Your task to perform on an android device: turn notification dots off Image 0: 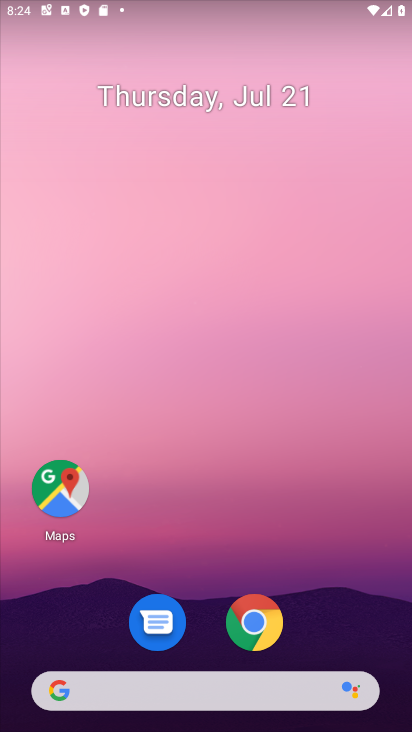
Step 0: drag from (144, 665) to (137, 41)
Your task to perform on an android device: turn notification dots off Image 1: 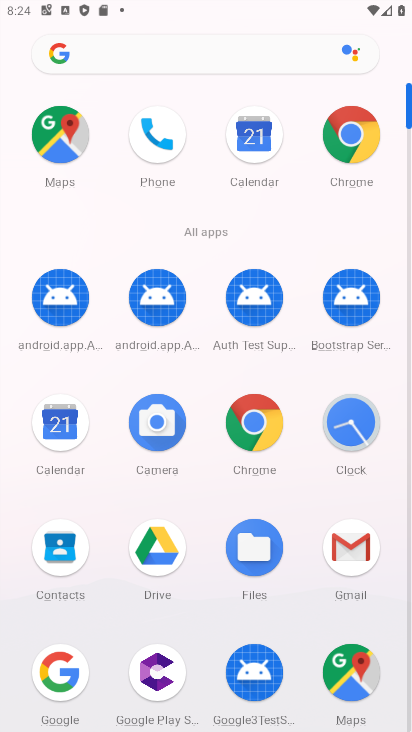
Step 1: drag from (171, 561) to (101, 44)
Your task to perform on an android device: turn notification dots off Image 2: 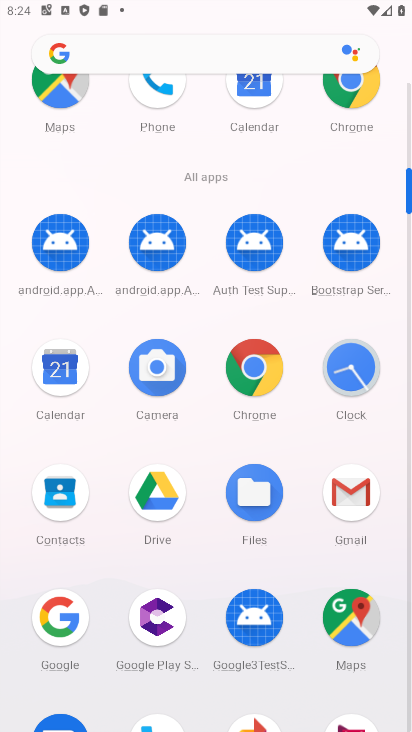
Step 2: drag from (183, 690) to (98, 139)
Your task to perform on an android device: turn notification dots off Image 3: 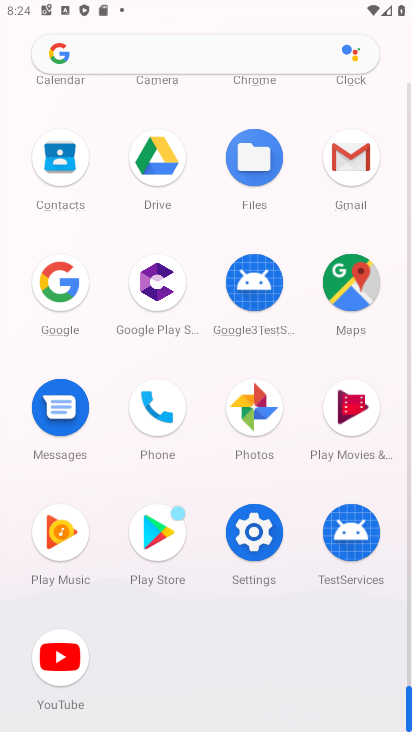
Step 3: click (269, 532)
Your task to perform on an android device: turn notification dots off Image 4: 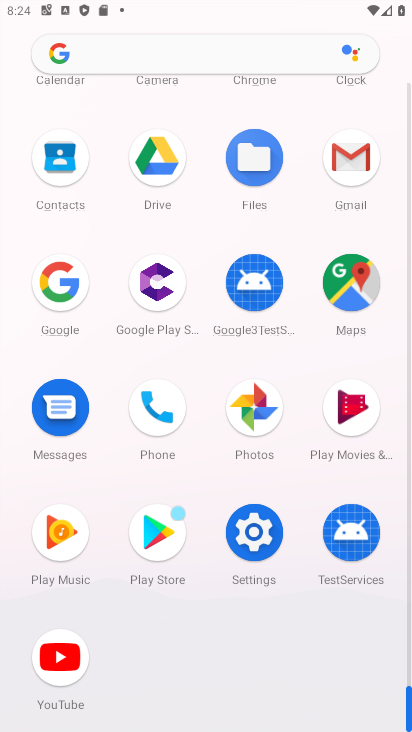
Step 4: click (269, 532)
Your task to perform on an android device: turn notification dots off Image 5: 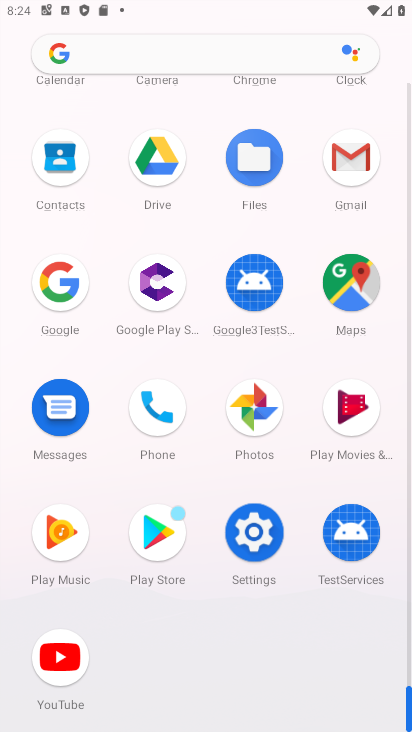
Step 5: click (269, 532)
Your task to perform on an android device: turn notification dots off Image 6: 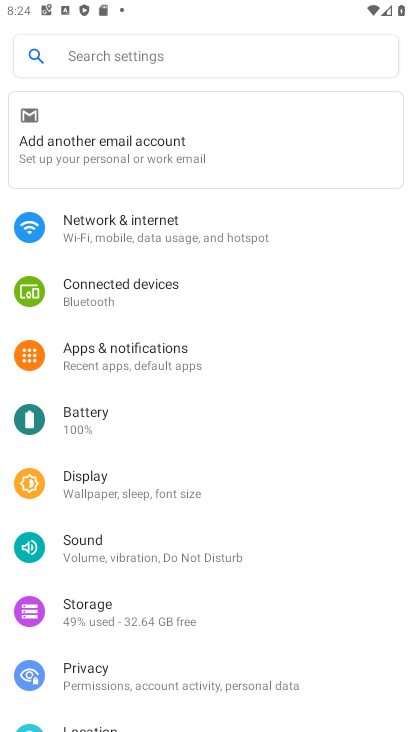
Step 6: click (212, 368)
Your task to perform on an android device: turn notification dots off Image 7: 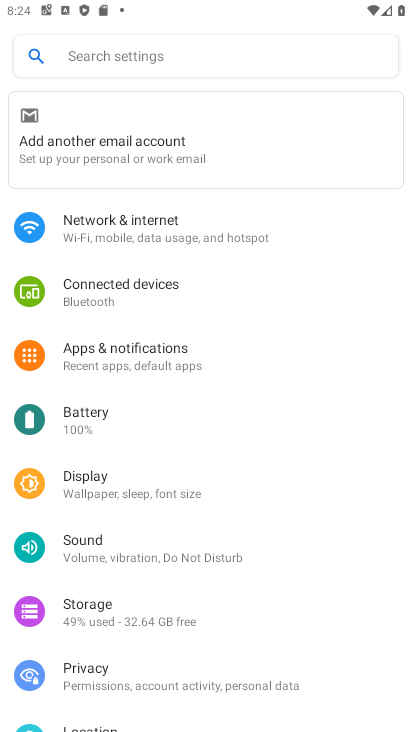
Step 7: click (212, 368)
Your task to perform on an android device: turn notification dots off Image 8: 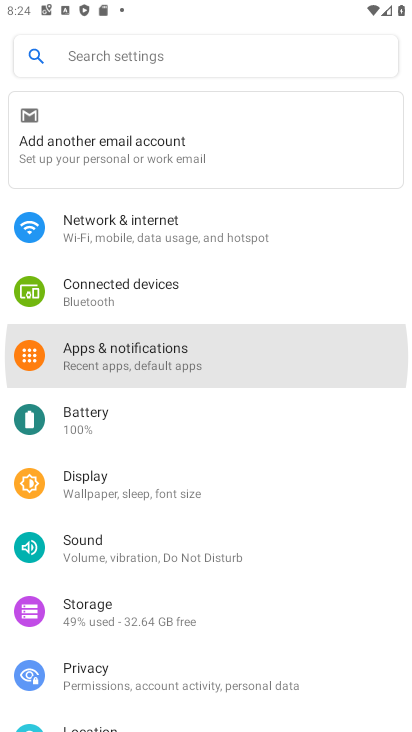
Step 8: click (212, 368)
Your task to perform on an android device: turn notification dots off Image 9: 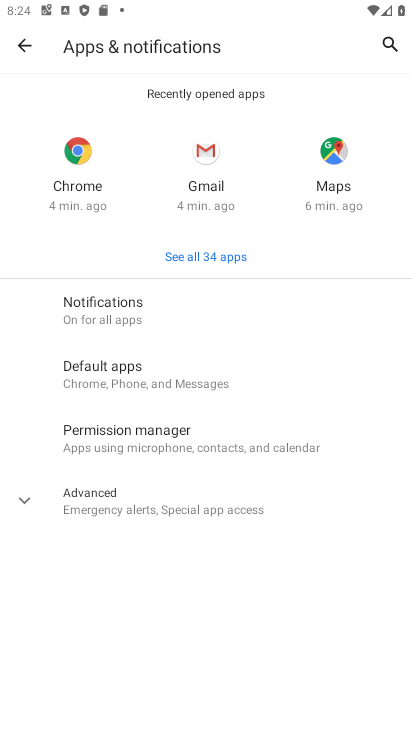
Step 9: click (157, 296)
Your task to perform on an android device: turn notification dots off Image 10: 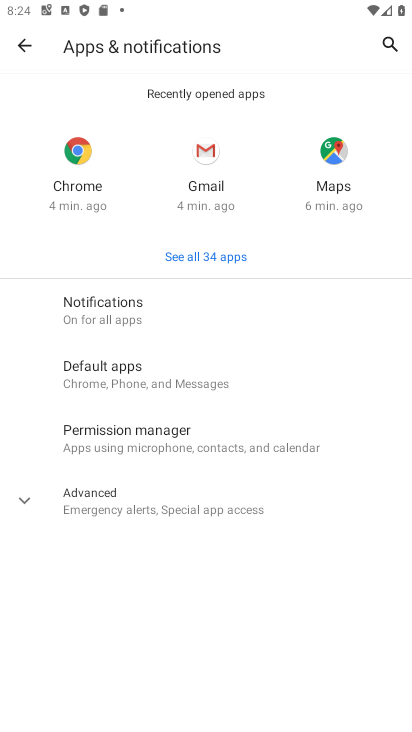
Step 10: click (157, 296)
Your task to perform on an android device: turn notification dots off Image 11: 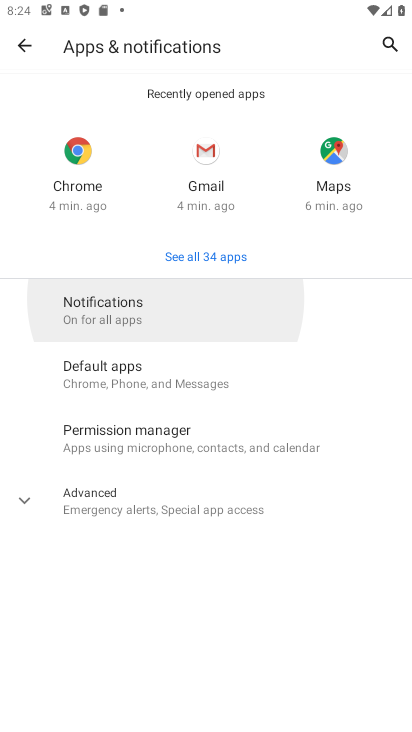
Step 11: click (157, 296)
Your task to perform on an android device: turn notification dots off Image 12: 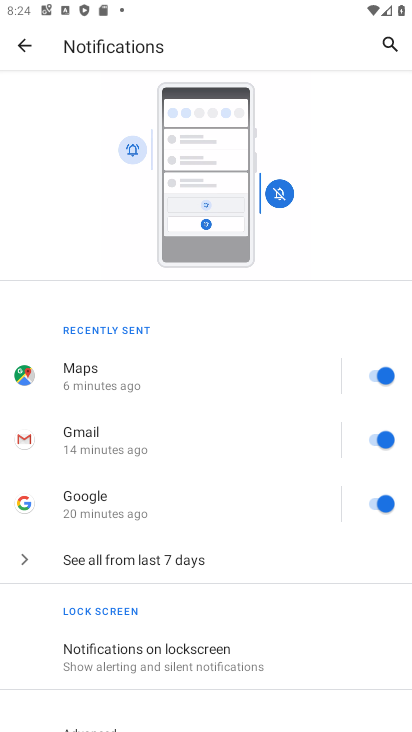
Step 12: drag from (193, 631) to (198, 16)
Your task to perform on an android device: turn notification dots off Image 13: 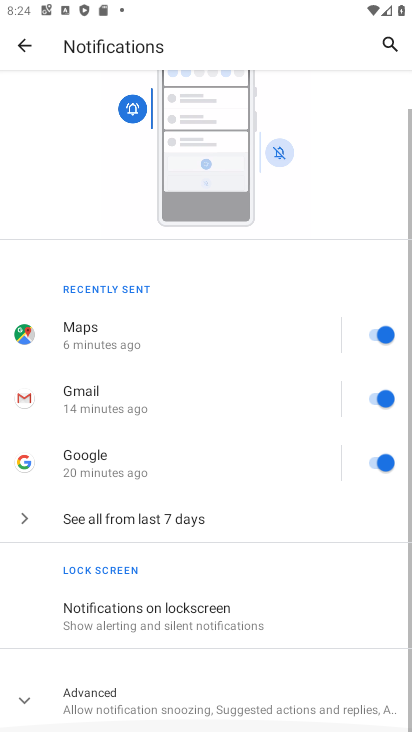
Step 13: drag from (216, 660) to (184, 61)
Your task to perform on an android device: turn notification dots off Image 14: 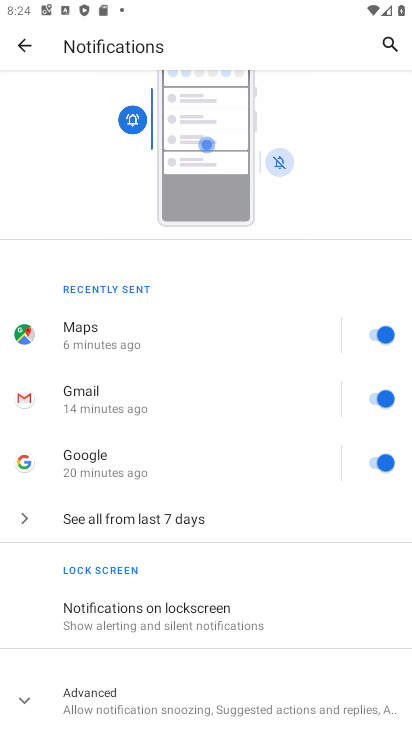
Step 14: click (245, 709)
Your task to perform on an android device: turn notification dots off Image 15: 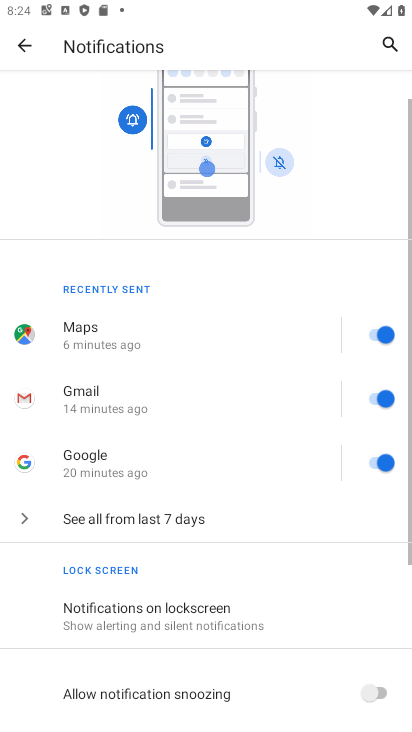
Step 15: drag from (240, 634) to (276, 101)
Your task to perform on an android device: turn notification dots off Image 16: 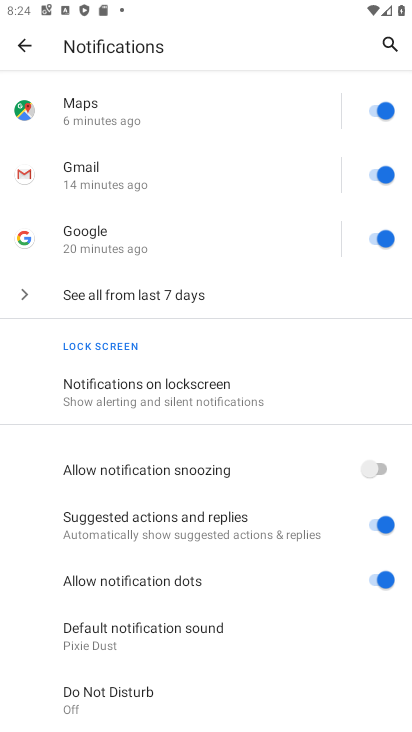
Step 16: click (387, 581)
Your task to perform on an android device: turn notification dots off Image 17: 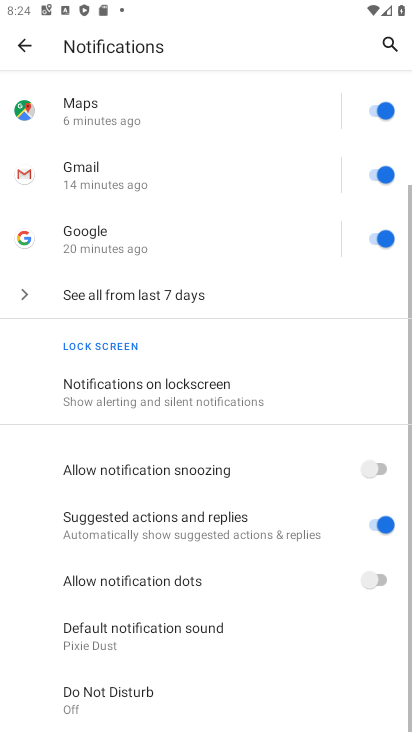
Step 17: task complete